Your task to perform on an android device: turn on wifi Image 0: 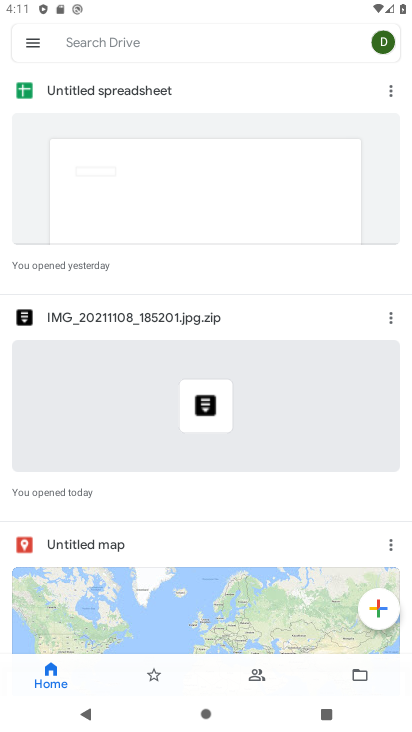
Step 0: press home button
Your task to perform on an android device: turn on wifi Image 1: 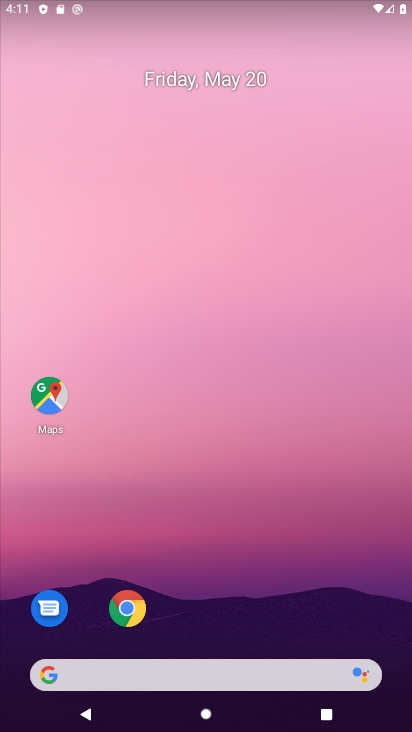
Step 1: drag from (240, 648) to (209, 61)
Your task to perform on an android device: turn on wifi Image 2: 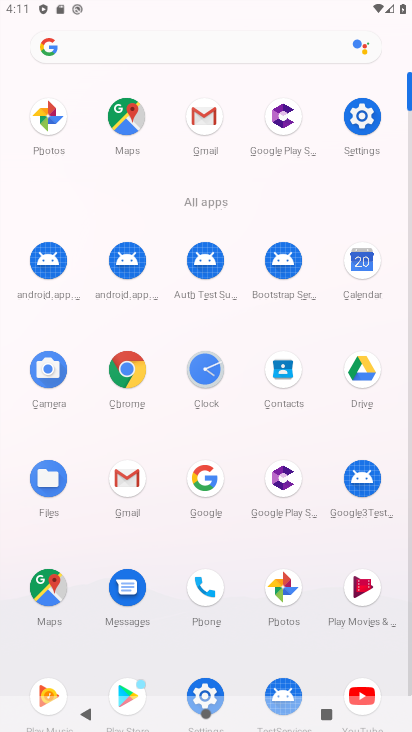
Step 2: click (361, 129)
Your task to perform on an android device: turn on wifi Image 3: 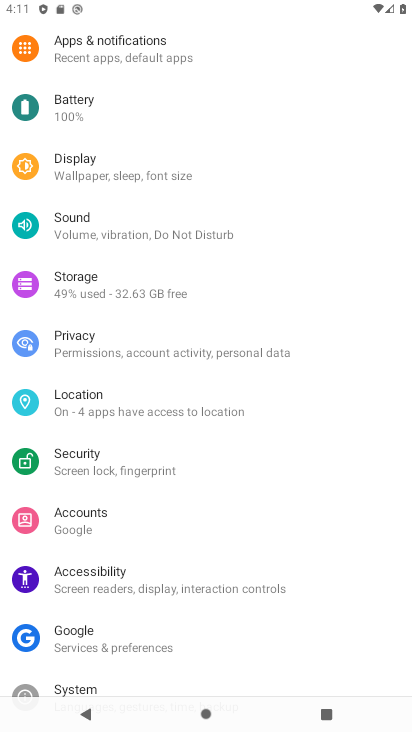
Step 3: drag from (215, 136) to (173, 666)
Your task to perform on an android device: turn on wifi Image 4: 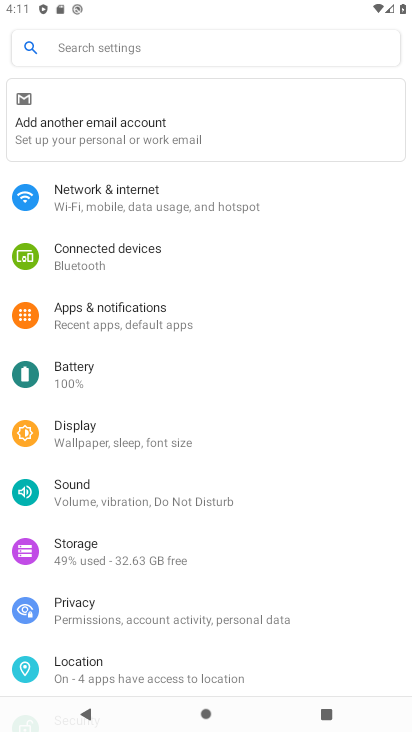
Step 4: click (141, 194)
Your task to perform on an android device: turn on wifi Image 5: 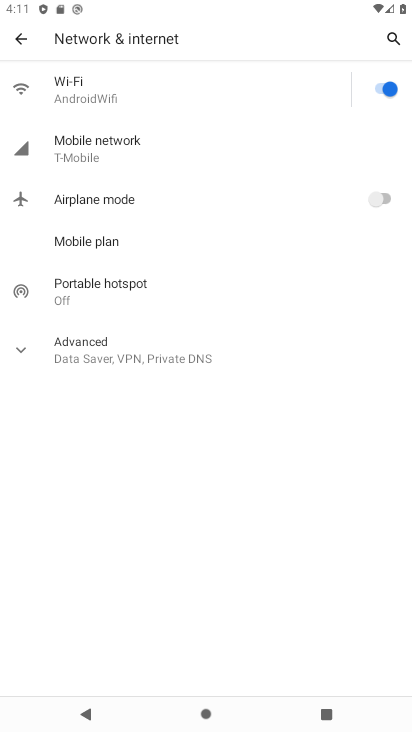
Step 5: task complete